Your task to perform on an android device: visit the assistant section in the google photos Image 0: 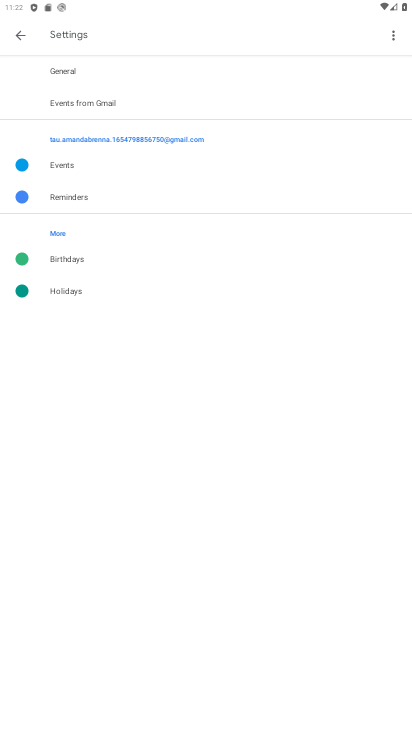
Step 0: press home button
Your task to perform on an android device: visit the assistant section in the google photos Image 1: 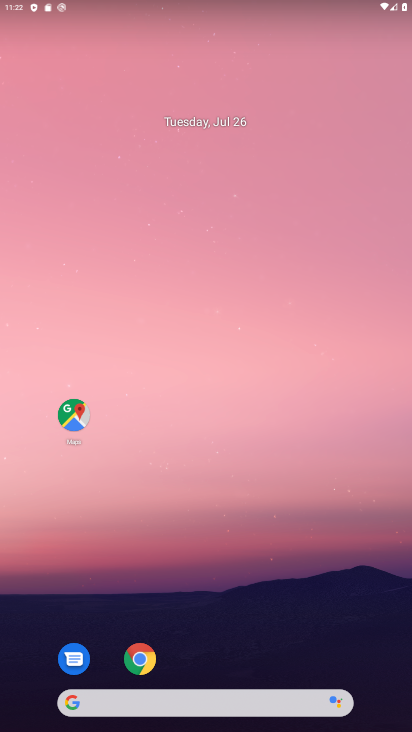
Step 1: drag from (231, 675) to (229, 182)
Your task to perform on an android device: visit the assistant section in the google photos Image 2: 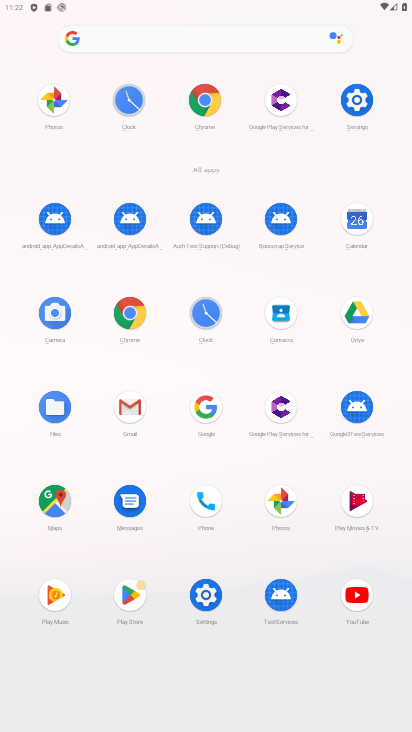
Step 2: click (281, 518)
Your task to perform on an android device: visit the assistant section in the google photos Image 3: 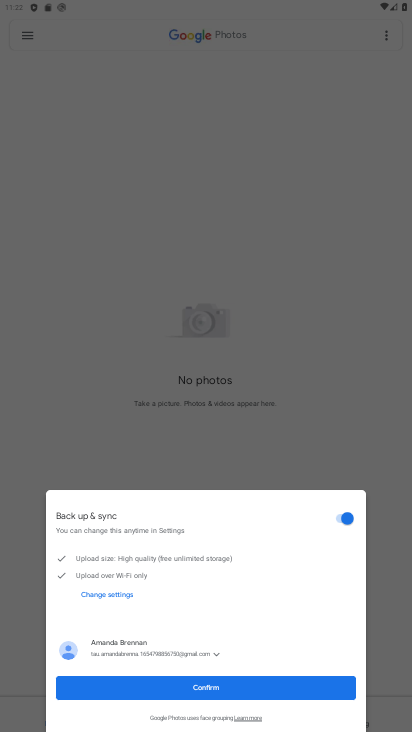
Step 3: press home button
Your task to perform on an android device: visit the assistant section in the google photos Image 4: 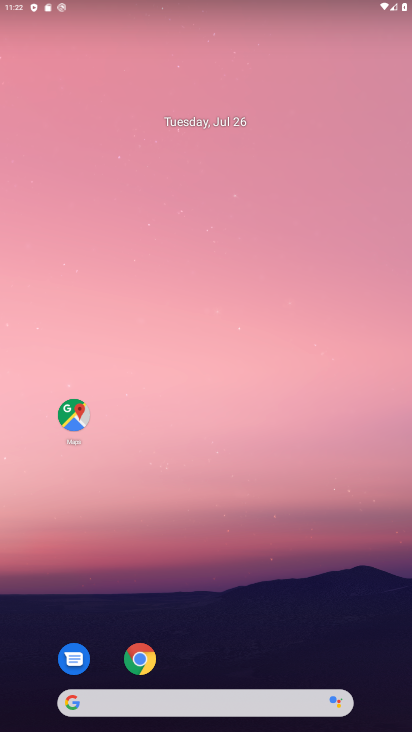
Step 4: drag from (234, 688) to (236, 134)
Your task to perform on an android device: visit the assistant section in the google photos Image 5: 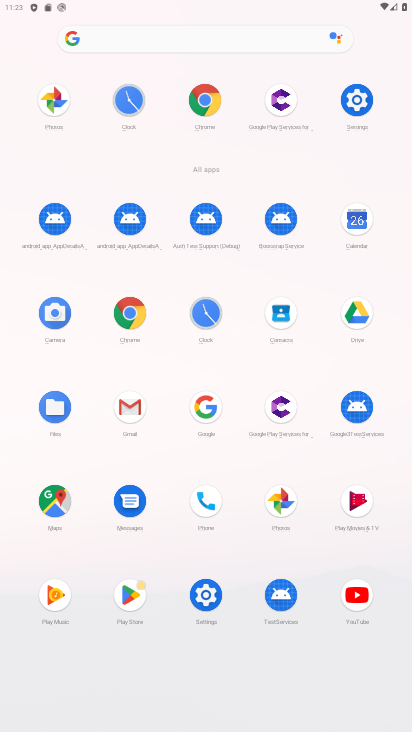
Step 5: click (282, 507)
Your task to perform on an android device: visit the assistant section in the google photos Image 6: 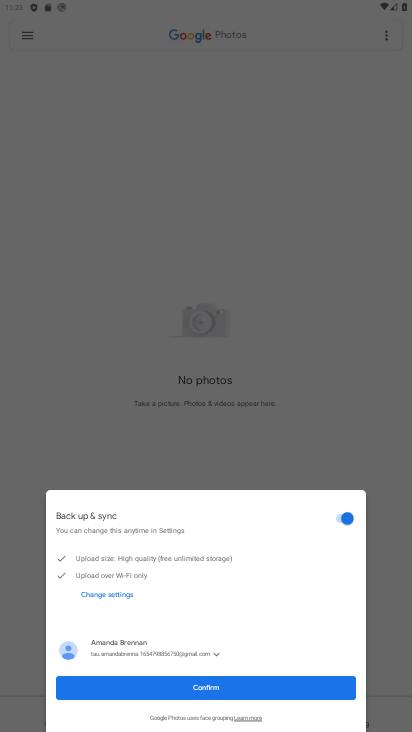
Step 6: click (266, 691)
Your task to perform on an android device: visit the assistant section in the google photos Image 7: 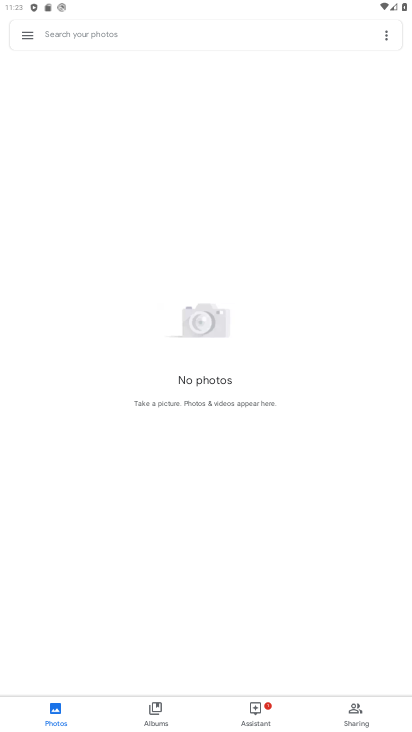
Step 7: click (265, 720)
Your task to perform on an android device: visit the assistant section in the google photos Image 8: 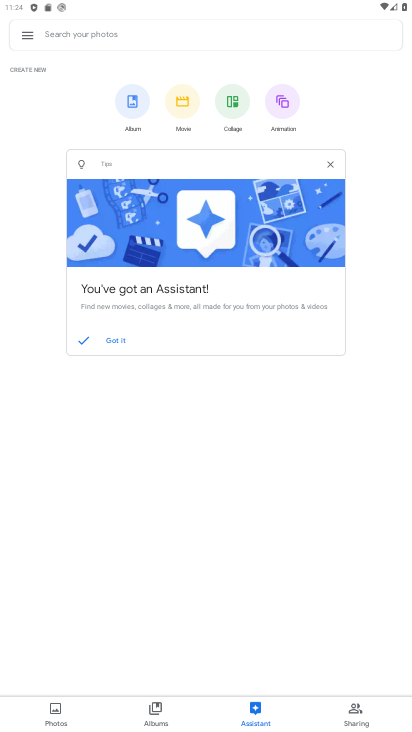
Step 8: task complete